Your task to perform on an android device: View the shopping cart on ebay. Add "macbook air" to the cart on ebay Image 0: 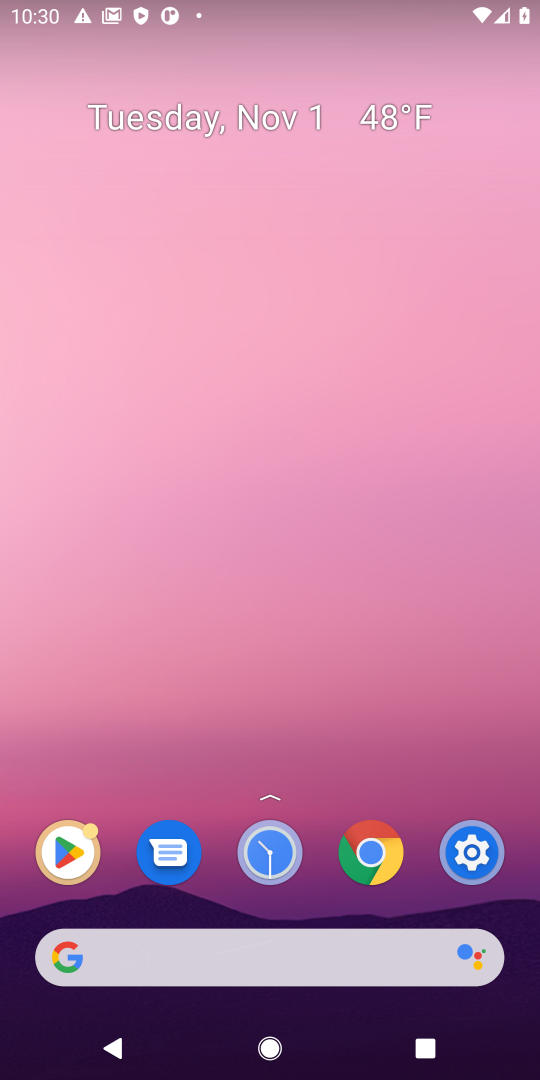
Step 0: click (219, 950)
Your task to perform on an android device: View the shopping cart on ebay. Add "macbook air" to the cart on ebay Image 1: 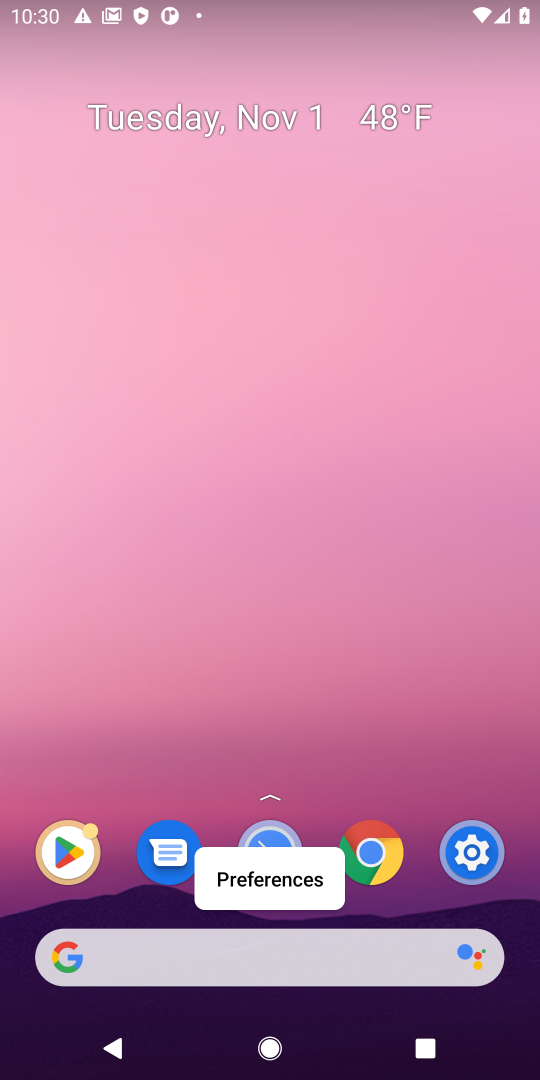
Step 1: click (219, 950)
Your task to perform on an android device: View the shopping cart on ebay. Add "macbook air" to the cart on ebay Image 2: 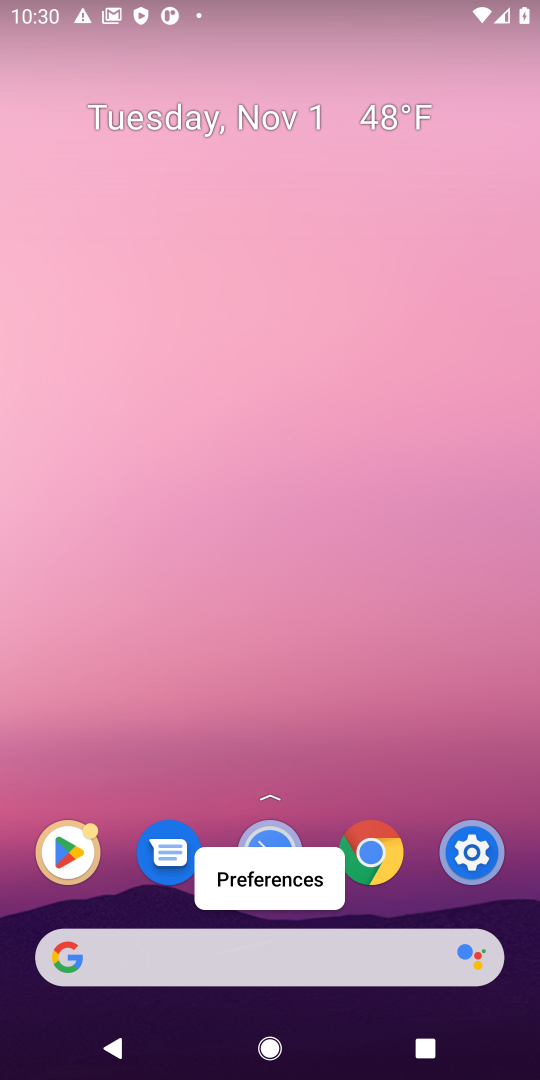
Step 2: click (219, 952)
Your task to perform on an android device: View the shopping cart on ebay. Add "macbook air" to the cart on ebay Image 3: 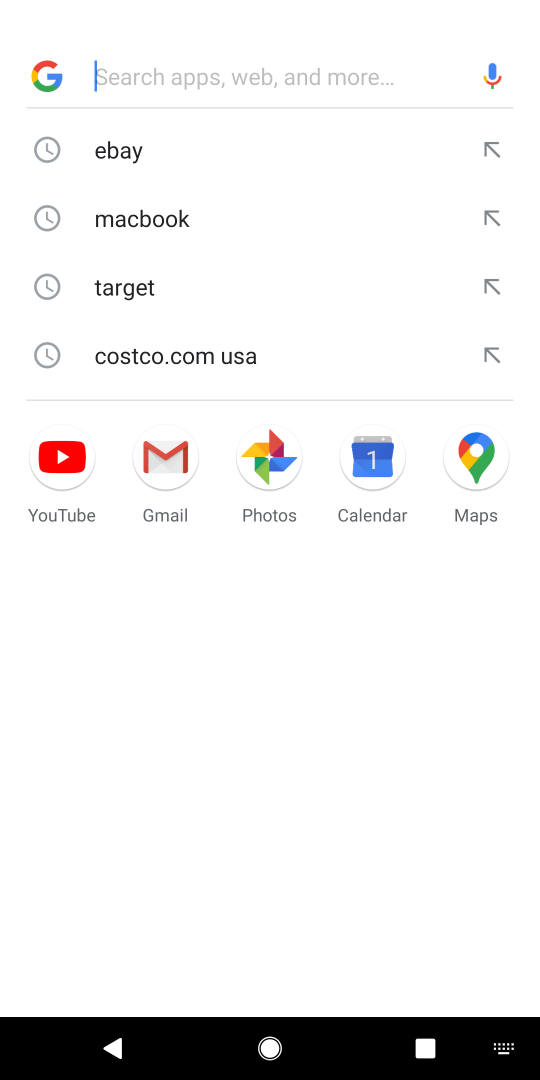
Step 3: type " ebay"
Your task to perform on an android device: View the shopping cart on ebay. Add "macbook air" to the cart on ebay Image 4: 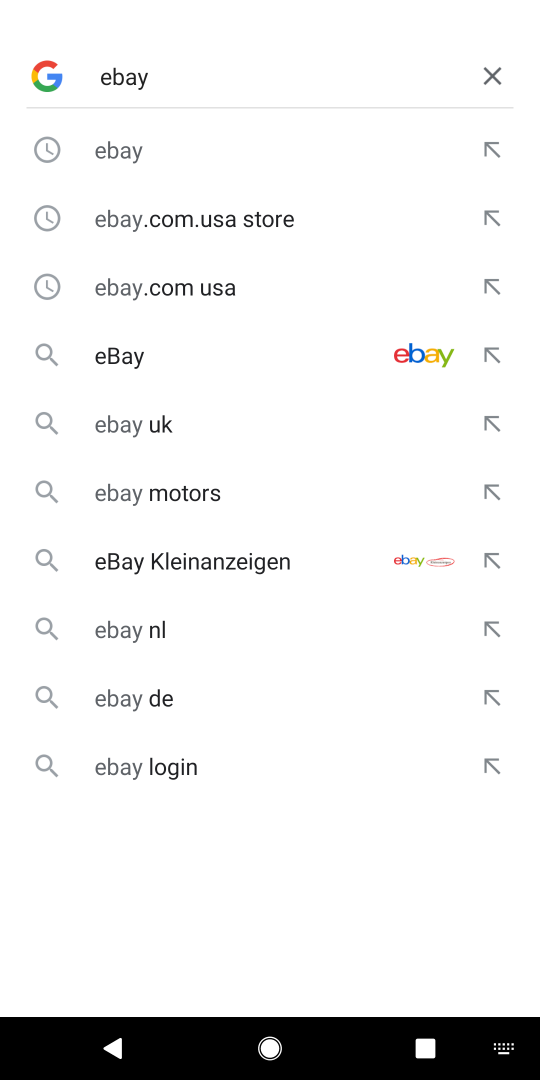
Step 4: type ""
Your task to perform on an android device: View the shopping cart on ebay. Add "macbook air" to the cart on ebay Image 5: 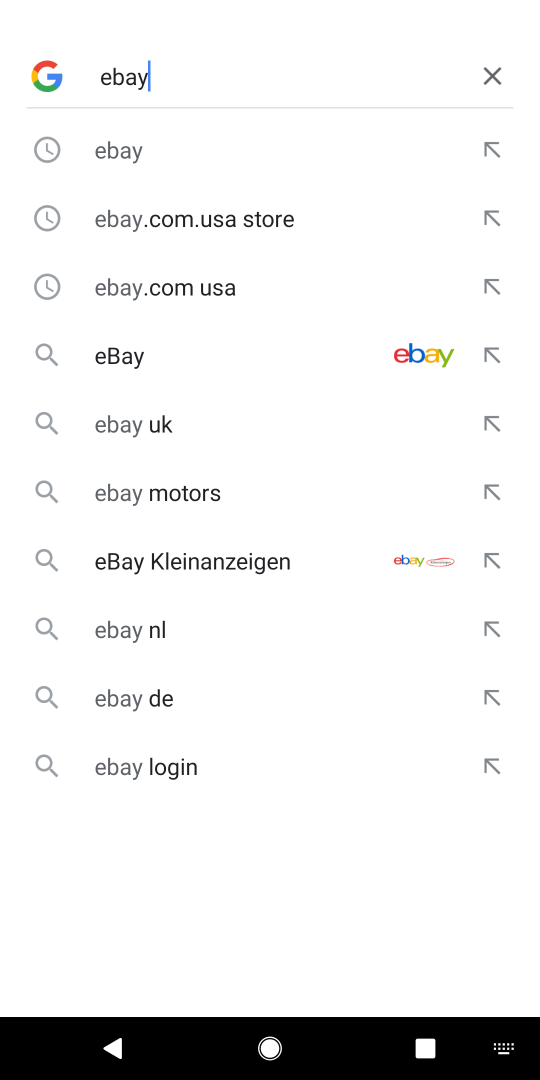
Step 5: press enter
Your task to perform on an android device: View the shopping cart on ebay. Add "macbook air" to the cart on ebay Image 6: 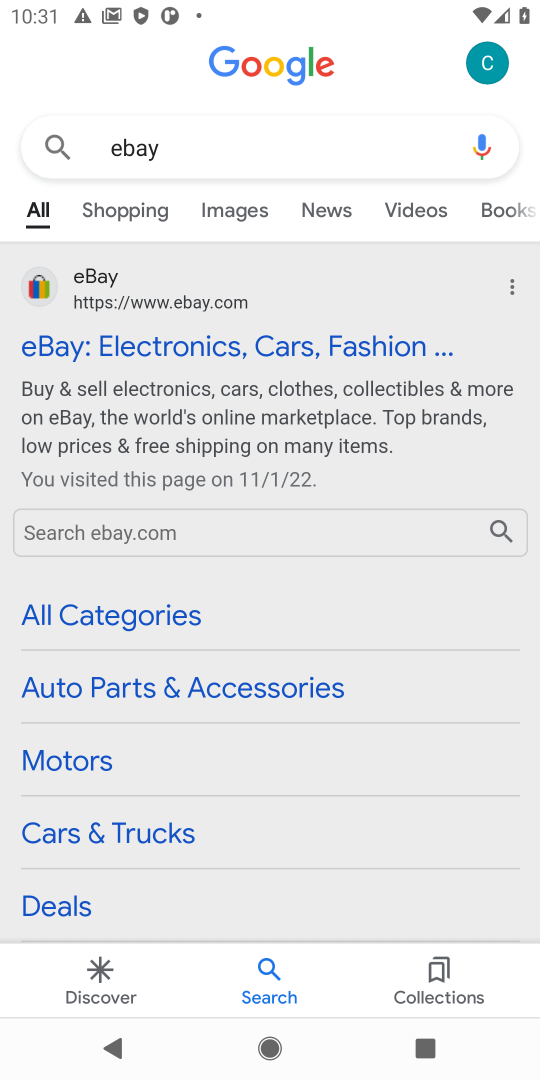
Step 6: click (115, 356)
Your task to perform on an android device: View the shopping cart on ebay. Add "macbook air" to the cart on ebay Image 7: 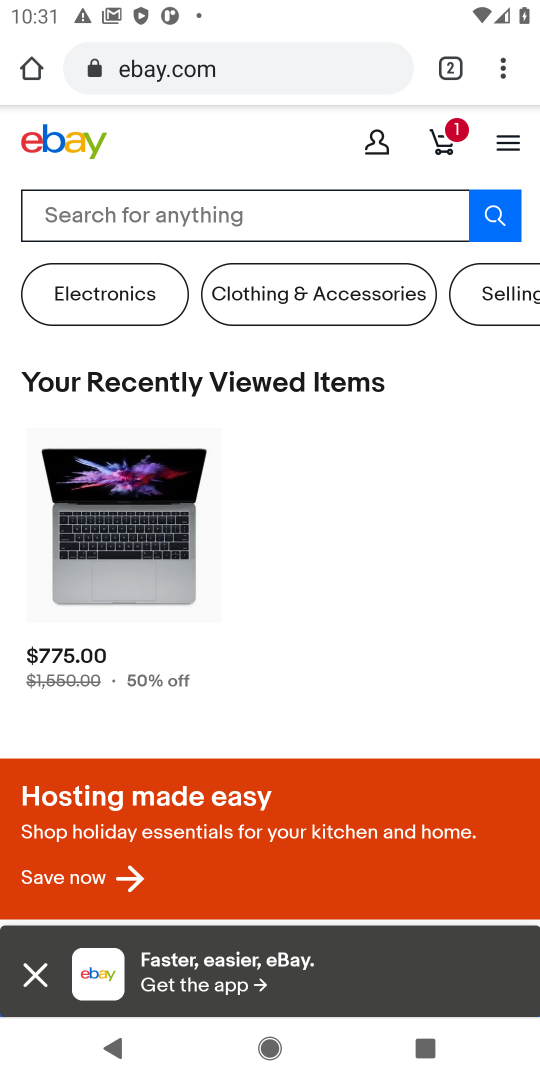
Step 7: click (211, 214)
Your task to perform on an android device: View the shopping cart on ebay. Add "macbook air" to the cart on ebay Image 8: 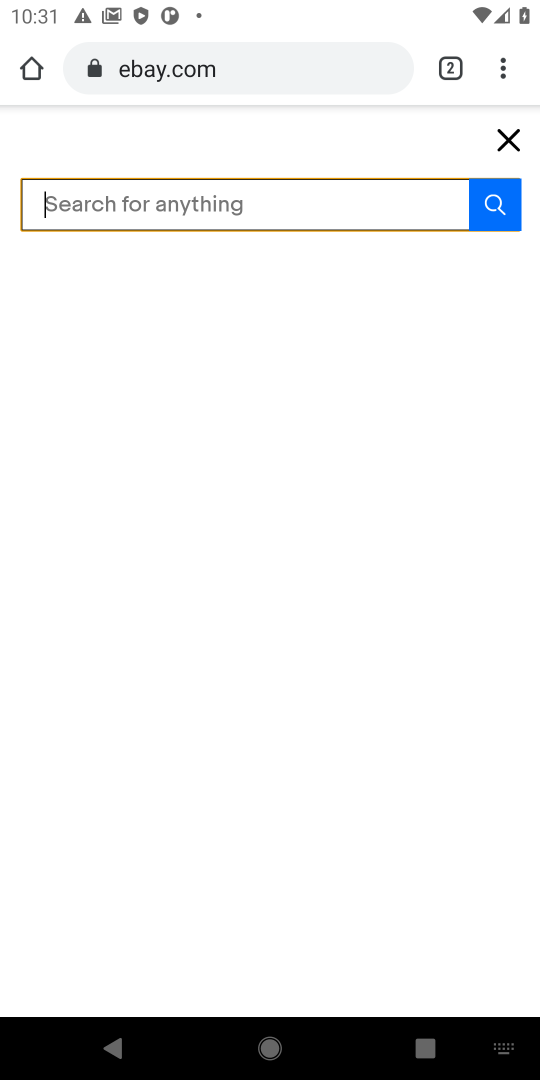
Step 8: type "macbook air"
Your task to perform on an android device: View the shopping cart on ebay. Add "macbook air" to the cart on ebay Image 9: 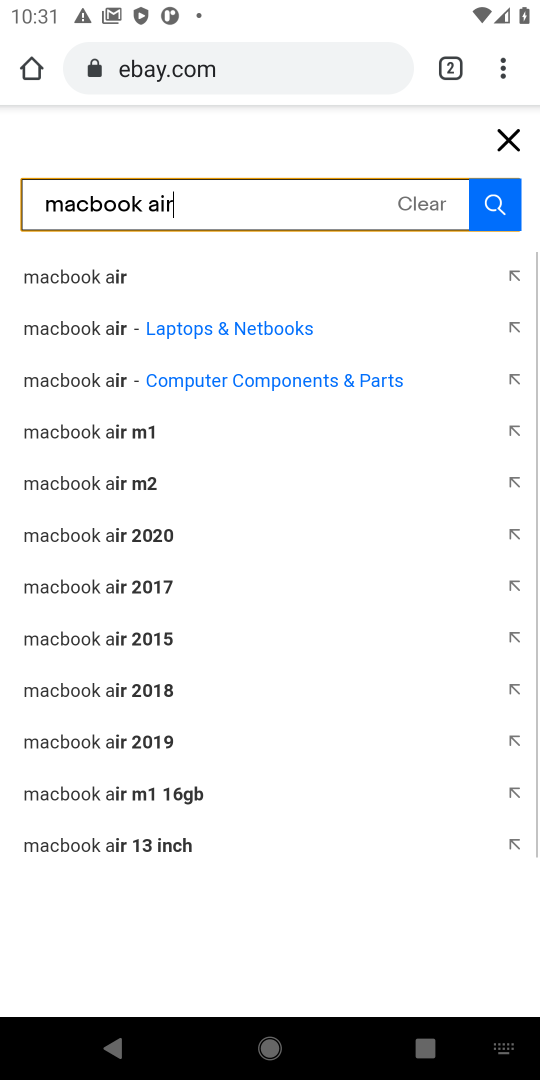
Step 9: type ""
Your task to perform on an android device: View the shopping cart on ebay. Add "macbook air" to the cart on ebay Image 10: 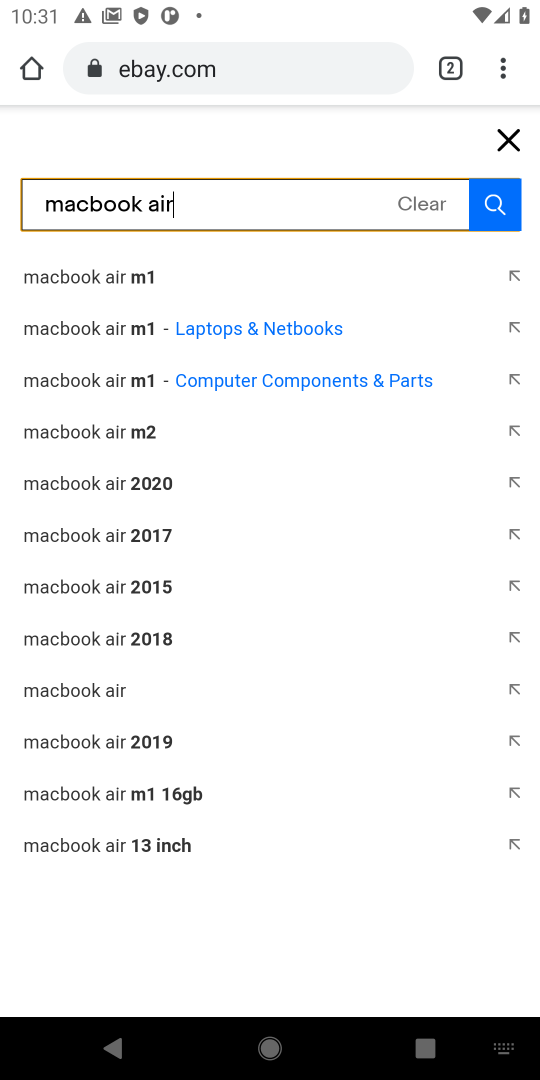
Step 10: press enter
Your task to perform on an android device: View the shopping cart on ebay. Add "macbook air" to the cart on ebay Image 11: 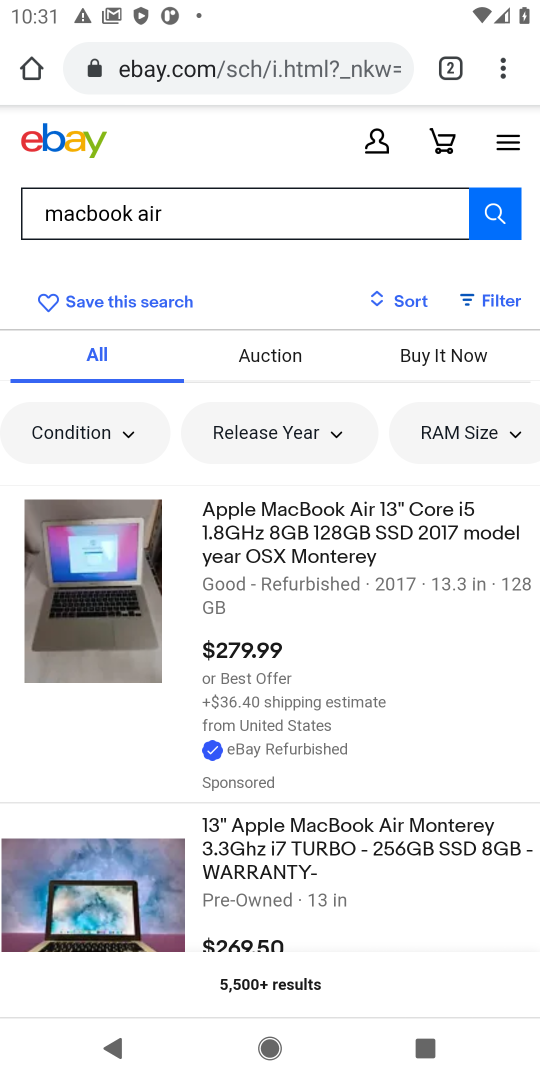
Step 11: click (323, 527)
Your task to perform on an android device: View the shopping cart on ebay. Add "macbook air" to the cart on ebay Image 12: 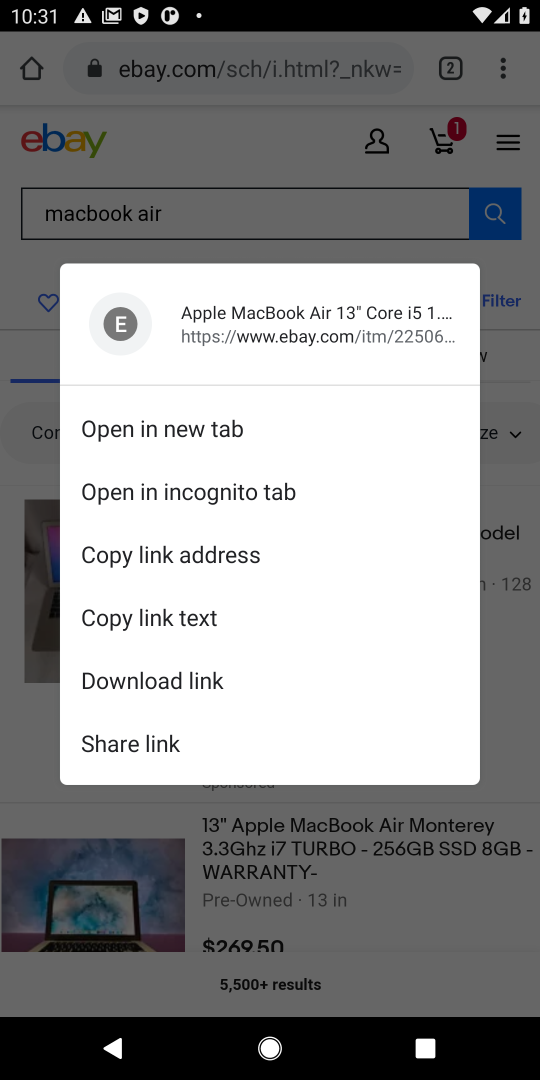
Step 12: click (538, 662)
Your task to perform on an android device: View the shopping cart on ebay. Add "macbook air" to the cart on ebay Image 13: 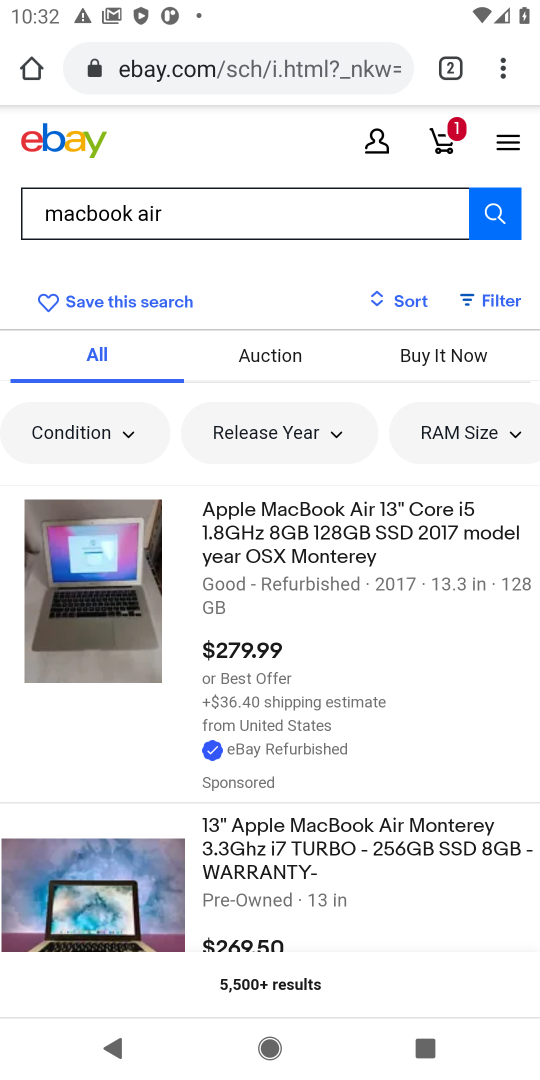
Step 13: click (350, 554)
Your task to perform on an android device: View the shopping cart on ebay. Add "macbook air" to the cart on ebay Image 14: 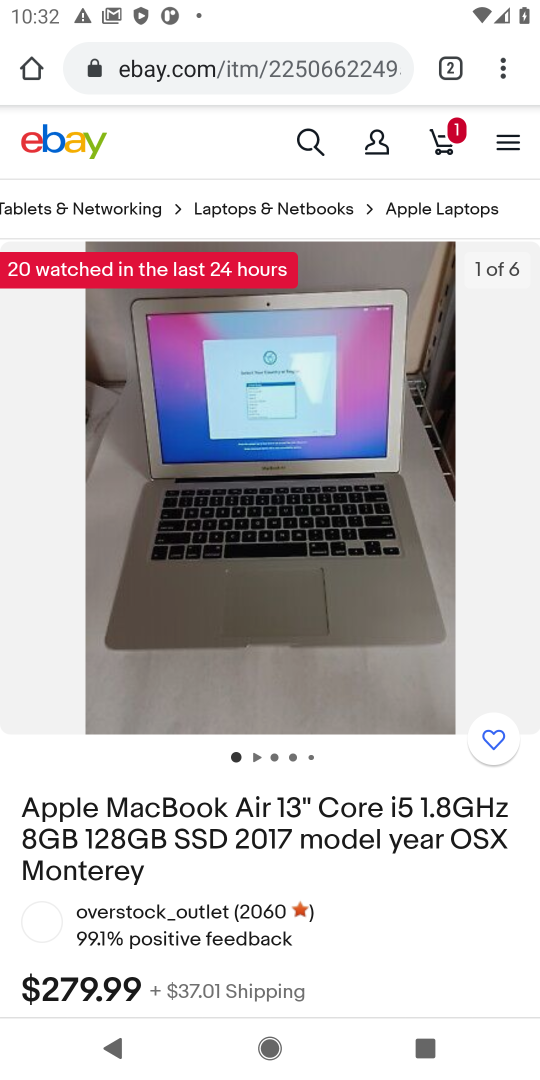
Step 14: drag from (405, 971) to (285, 906)
Your task to perform on an android device: View the shopping cart on ebay. Add "macbook air" to the cart on ebay Image 15: 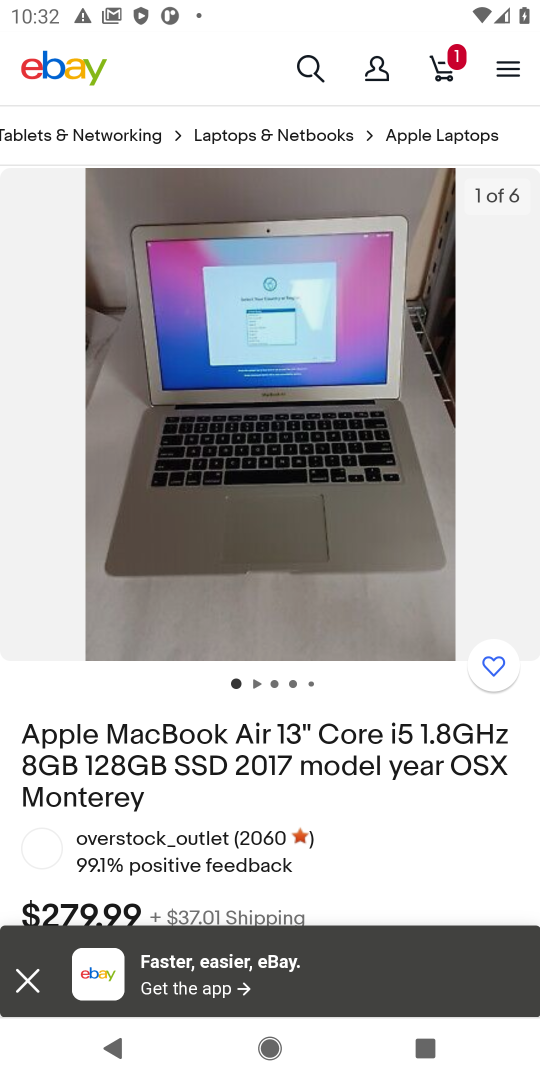
Step 15: drag from (392, 854) to (396, 286)
Your task to perform on an android device: View the shopping cart on ebay. Add "macbook air" to the cart on ebay Image 16: 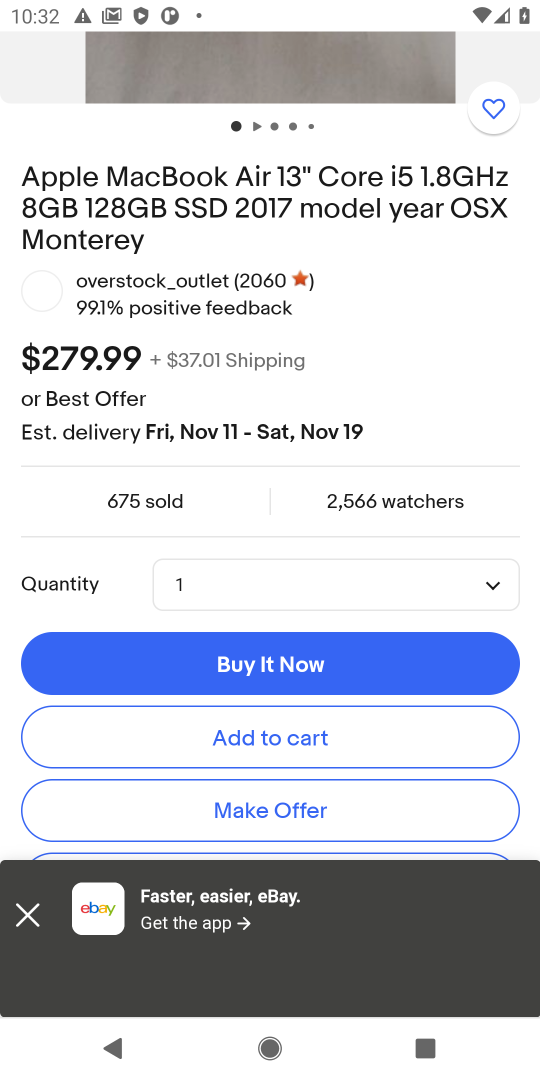
Step 16: click (282, 737)
Your task to perform on an android device: View the shopping cart on ebay. Add "macbook air" to the cart on ebay Image 17: 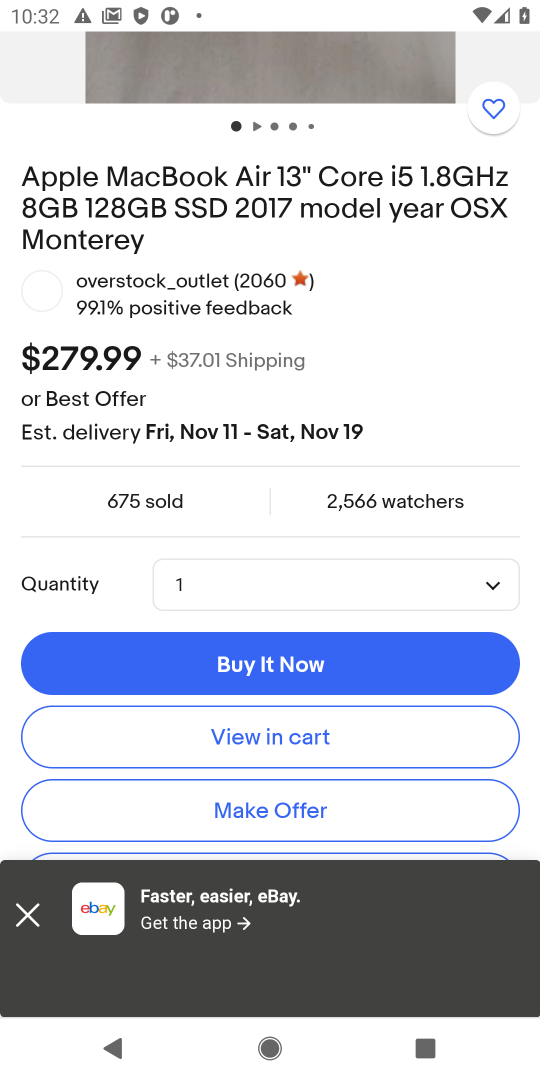
Step 17: click (282, 737)
Your task to perform on an android device: View the shopping cart on ebay. Add "macbook air" to the cart on ebay Image 18: 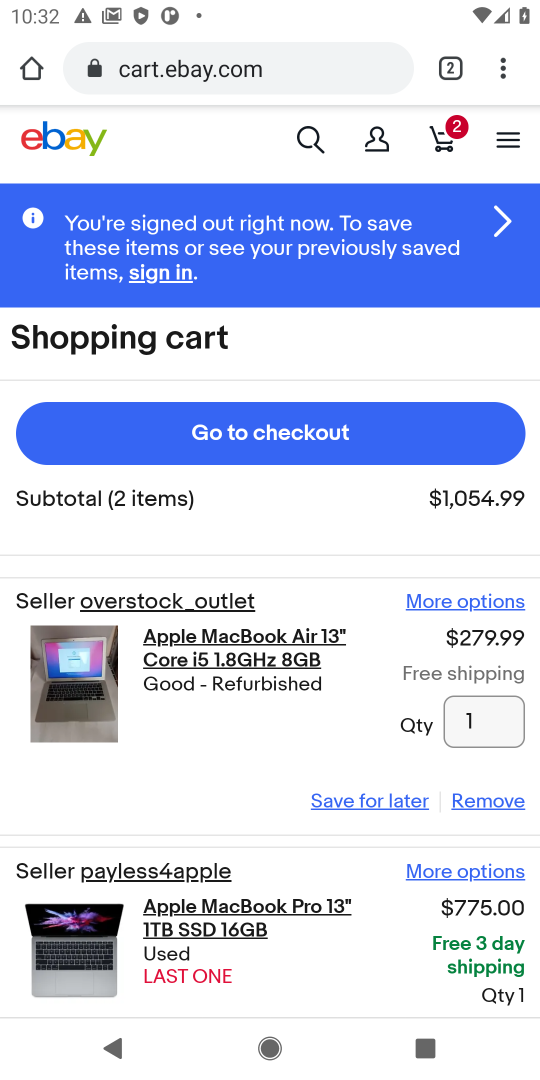
Step 18: task complete